Your task to perform on an android device: toggle show notifications on the lock screen Image 0: 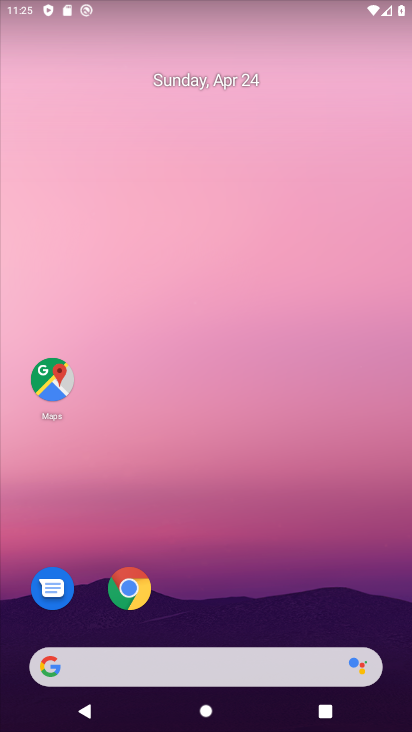
Step 0: drag from (226, 285) to (303, 73)
Your task to perform on an android device: toggle show notifications on the lock screen Image 1: 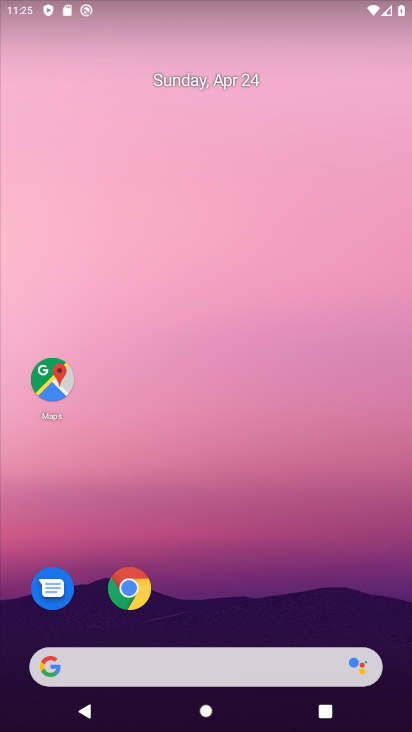
Step 1: drag from (187, 600) to (299, 83)
Your task to perform on an android device: toggle show notifications on the lock screen Image 2: 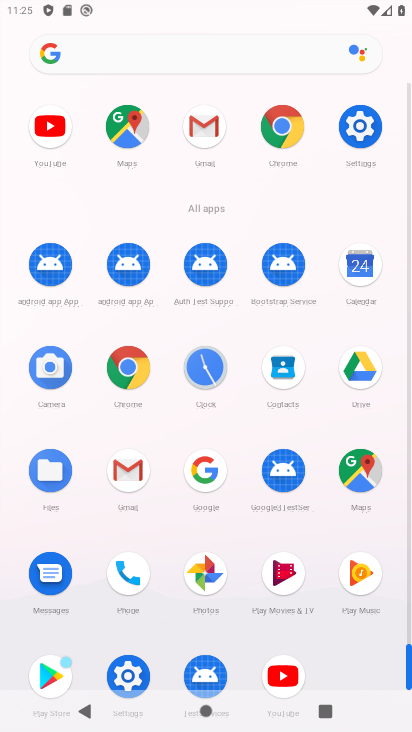
Step 2: click (357, 130)
Your task to perform on an android device: toggle show notifications on the lock screen Image 3: 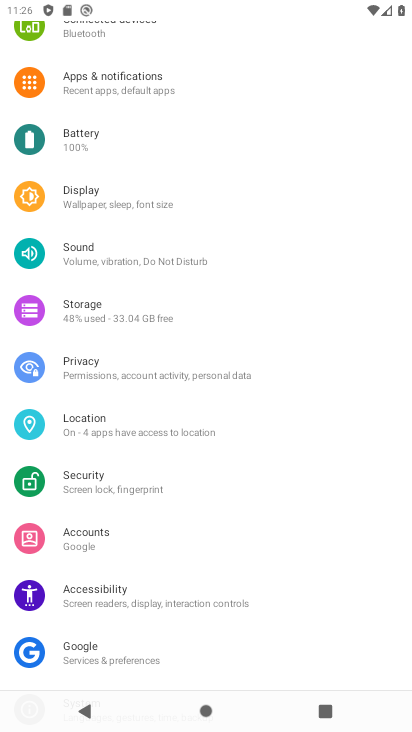
Step 3: click (204, 74)
Your task to perform on an android device: toggle show notifications on the lock screen Image 4: 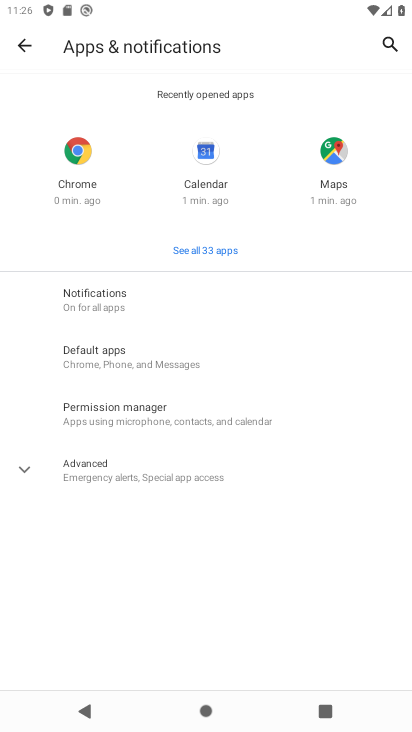
Step 4: click (202, 308)
Your task to perform on an android device: toggle show notifications on the lock screen Image 5: 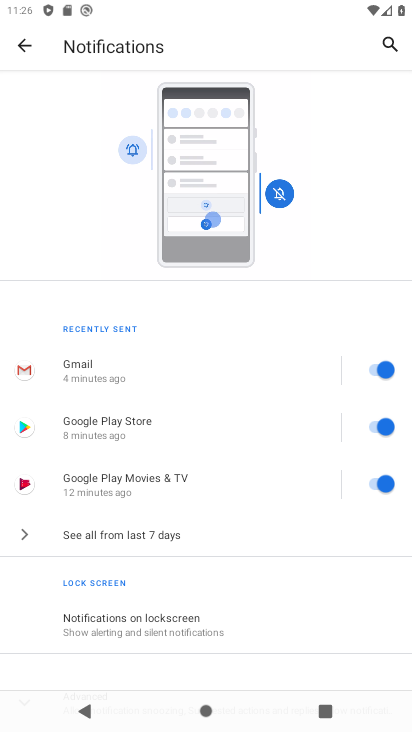
Step 5: drag from (232, 605) to (320, 232)
Your task to perform on an android device: toggle show notifications on the lock screen Image 6: 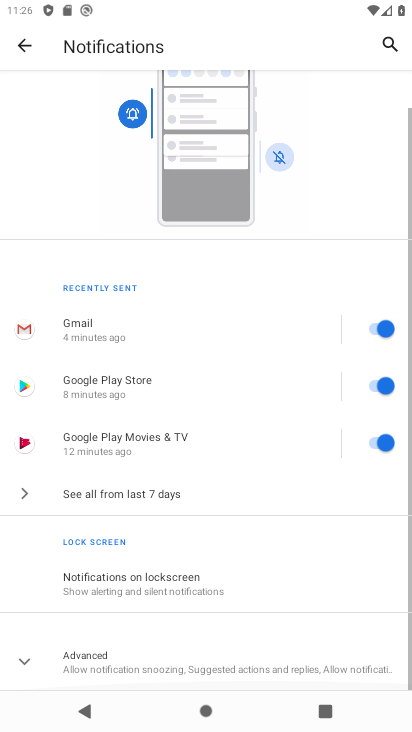
Step 6: click (227, 586)
Your task to perform on an android device: toggle show notifications on the lock screen Image 7: 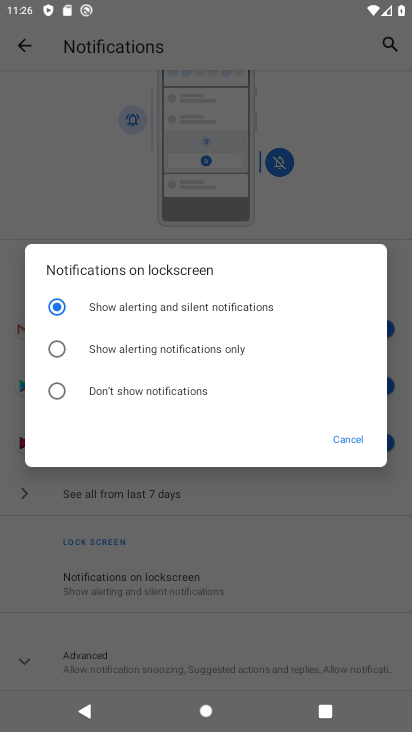
Step 7: task complete